Your task to perform on an android device: change notification settings in the gmail app Image 0: 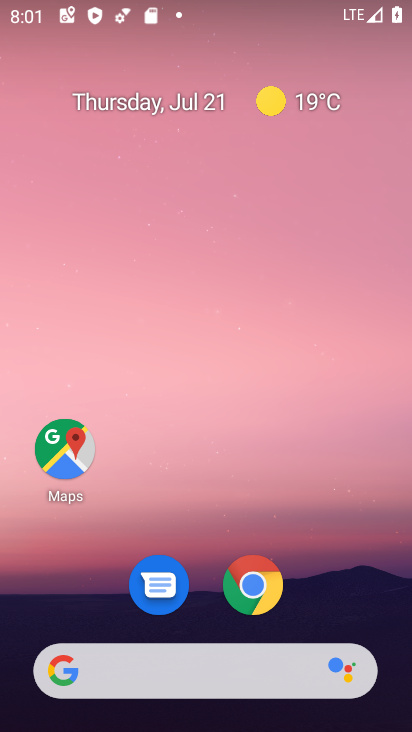
Step 0: drag from (320, 575) to (259, 42)
Your task to perform on an android device: change notification settings in the gmail app Image 1: 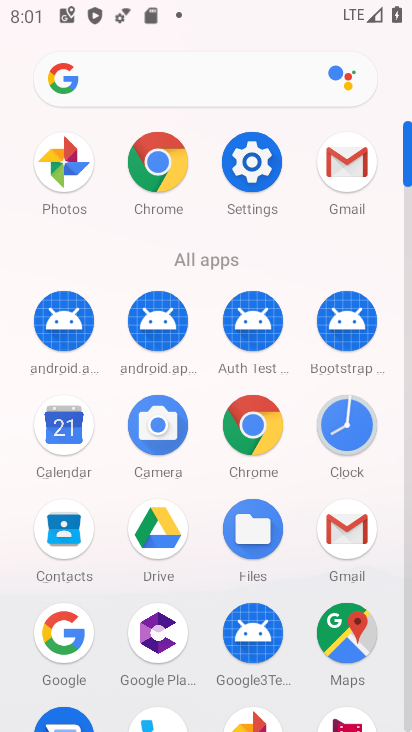
Step 1: click (350, 163)
Your task to perform on an android device: change notification settings in the gmail app Image 2: 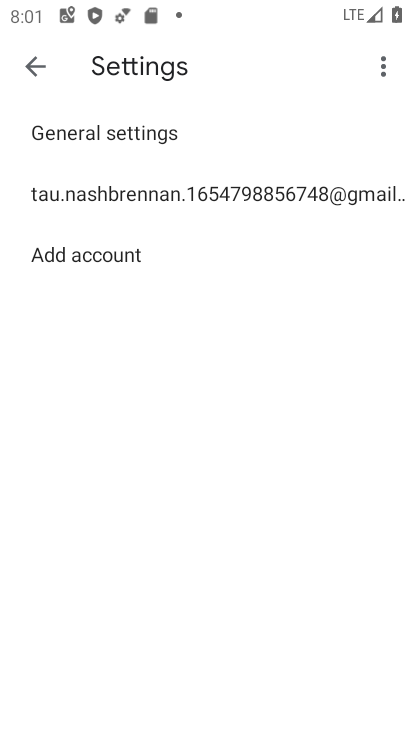
Step 2: click (276, 197)
Your task to perform on an android device: change notification settings in the gmail app Image 3: 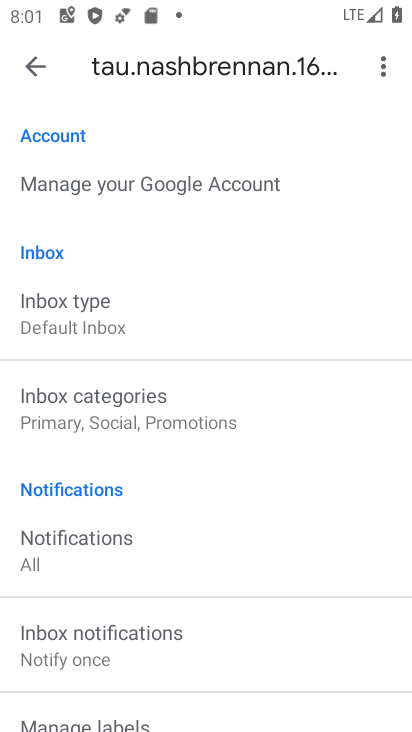
Step 3: drag from (258, 487) to (248, 193)
Your task to perform on an android device: change notification settings in the gmail app Image 4: 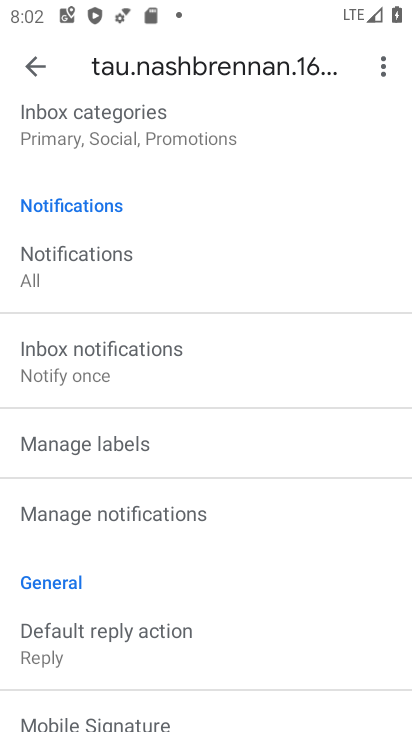
Step 4: click (237, 512)
Your task to perform on an android device: change notification settings in the gmail app Image 5: 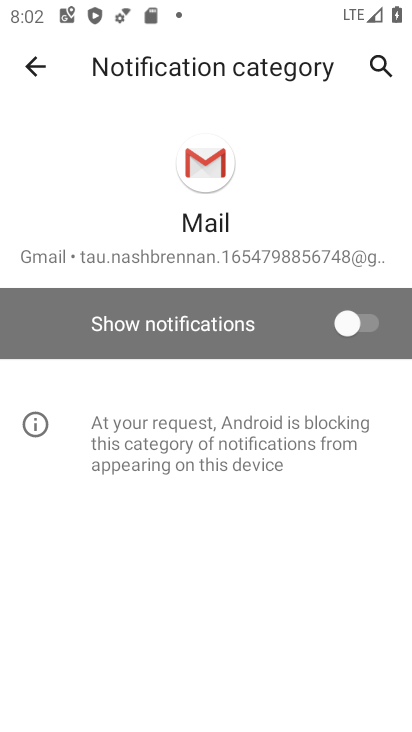
Step 5: click (367, 313)
Your task to perform on an android device: change notification settings in the gmail app Image 6: 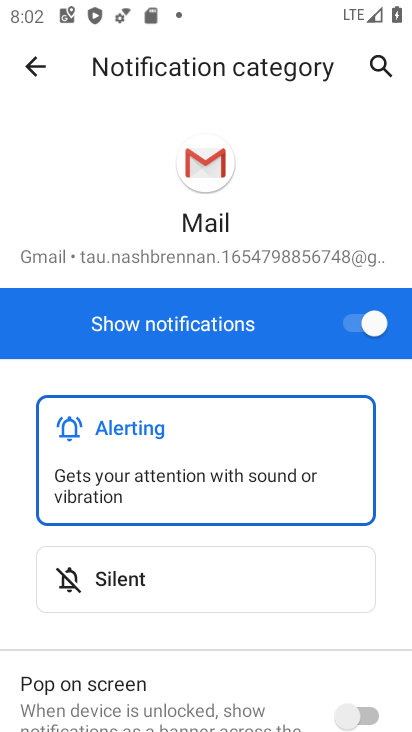
Step 6: task complete